Your task to perform on an android device: open chrome privacy settings Image 0: 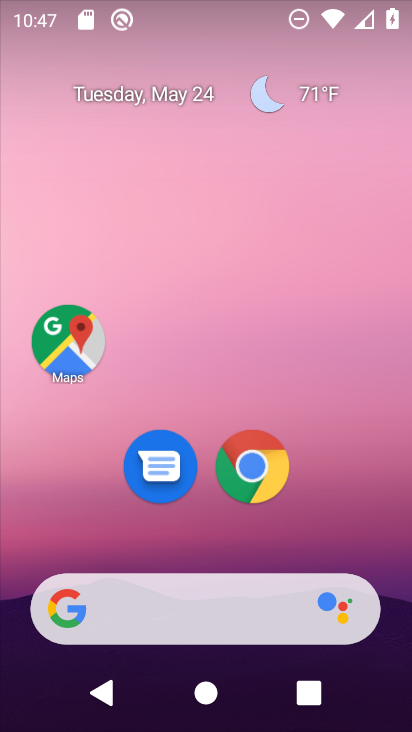
Step 0: click (246, 447)
Your task to perform on an android device: open chrome privacy settings Image 1: 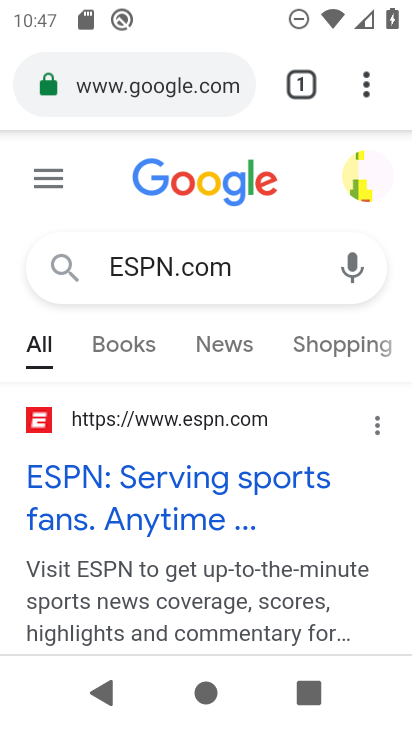
Step 1: click (375, 88)
Your task to perform on an android device: open chrome privacy settings Image 2: 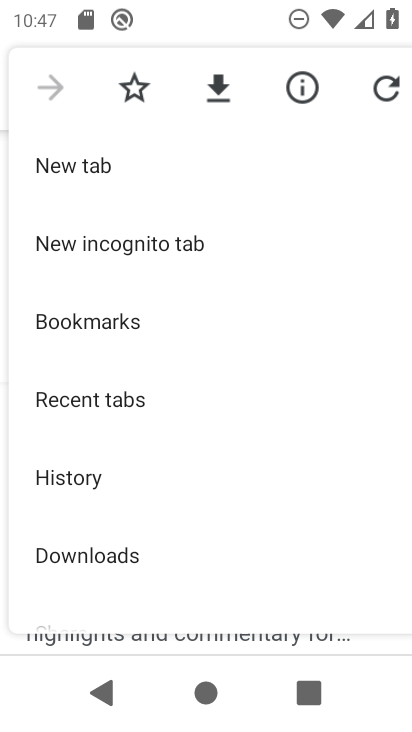
Step 2: drag from (121, 514) to (194, 226)
Your task to perform on an android device: open chrome privacy settings Image 3: 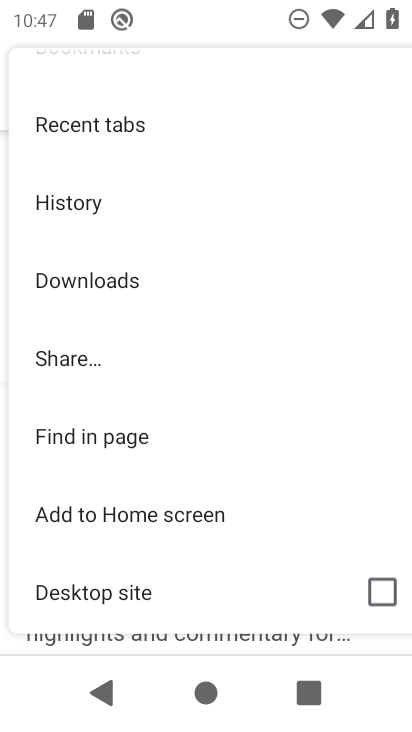
Step 3: click (166, 173)
Your task to perform on an android device: open chrome privacy settings Image 4: 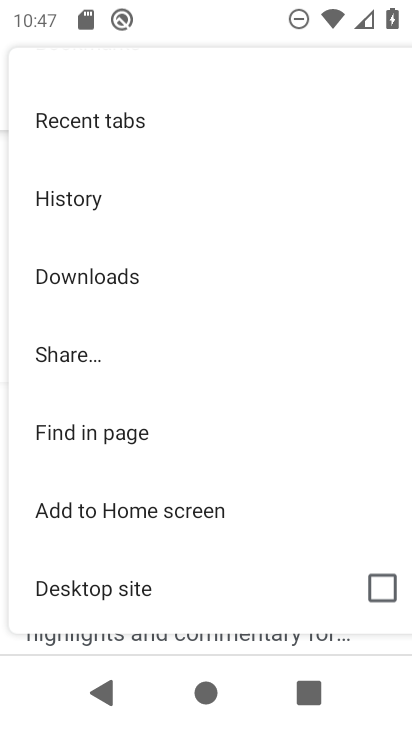
Step 4: drag from (104, 554) to (134, 331)
Your task to perform on an android device: open chrome privacy settings Image 5: 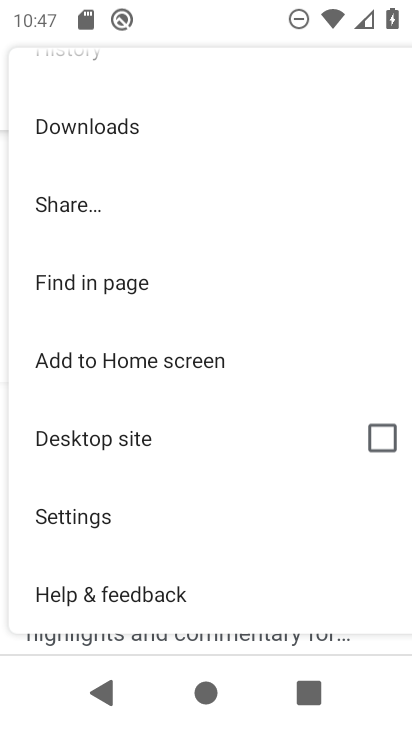
Step 5: click (89, 523)
Your task to perform on an android device: open chrome privacy settings Image 6: 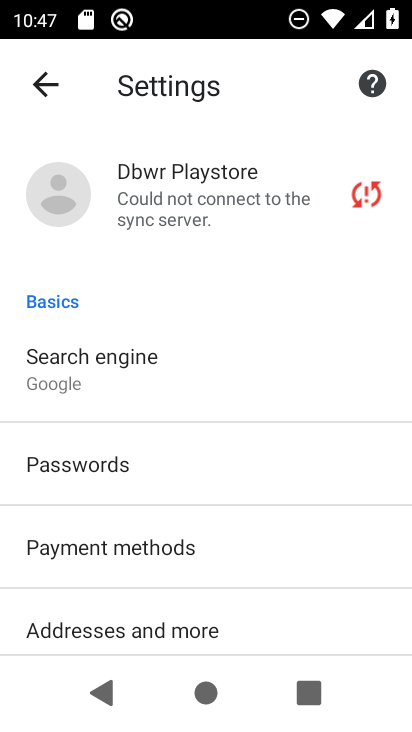
Step 6: drag from (135, 513) to (224, 185)
Your task to perform on an android device: open chrome privacy settings Image 7: 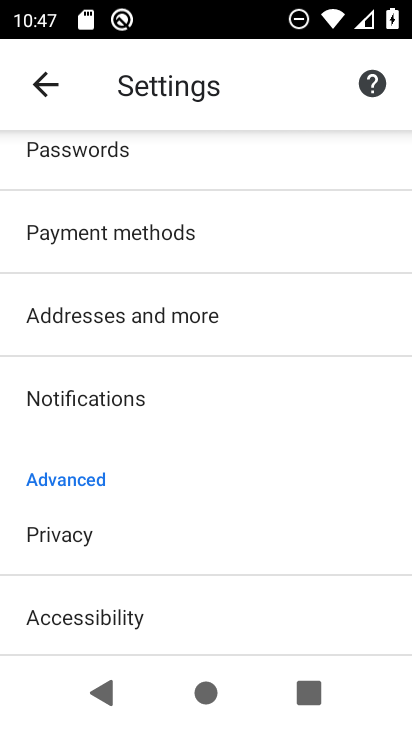
Step 7: click (91, 537)
Your task to perform on an android device: open chrome privacy settings Image 8: 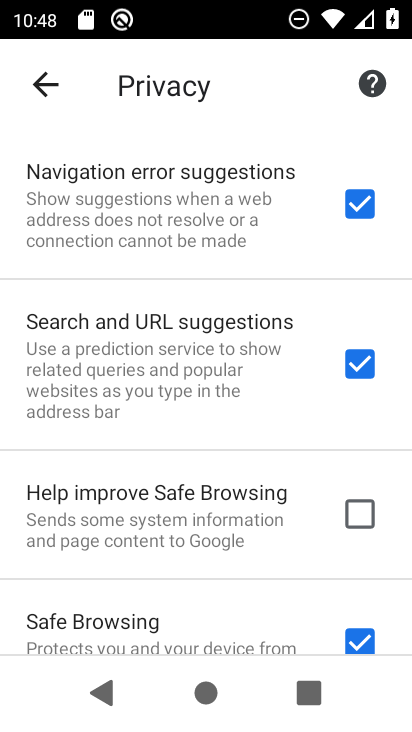
Step 8: task complete